Your task to perform on an android device: Show me popular games on the Play Store Image 0: 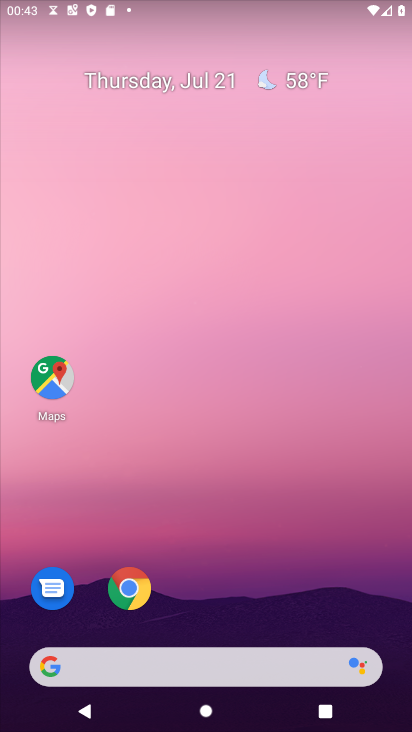
Step 0: drag from (208, 584) to (201, 52)
Your task to perform on an android device: Show me popular games on the Play Store Image 1: 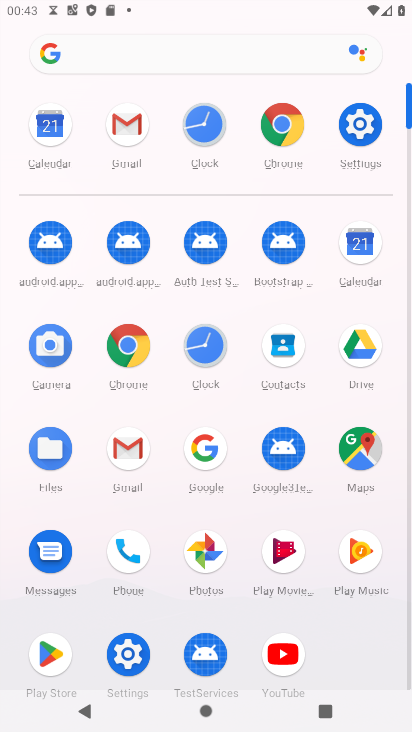
Step 1: click (52, 653)
Your task to perform on an android device: Show me popular games on the Play Store Image 2: 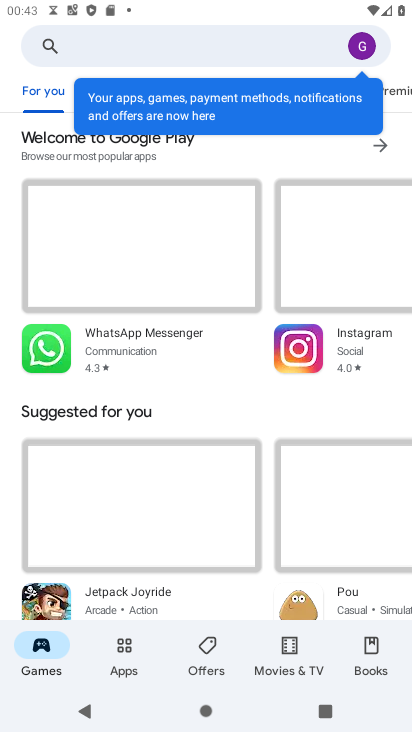
Step 2: click (117, 92)
Your task to perform on an android device: Show me popular games on the Play Store Image 3: 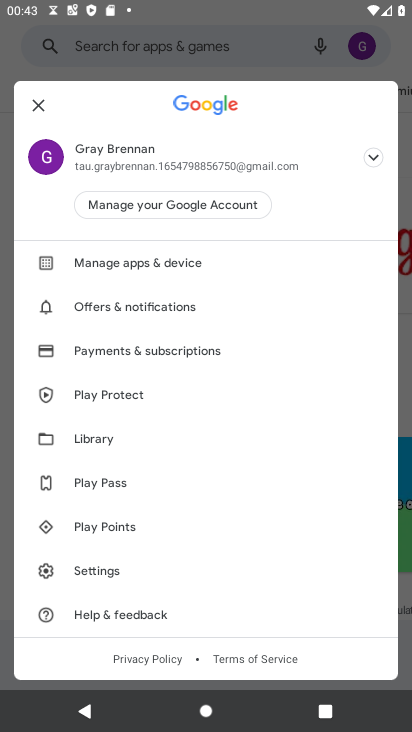
Step 3: click (138, 94)
Your task to perform on an android device: Show me popular games on the Play Store Image 4: 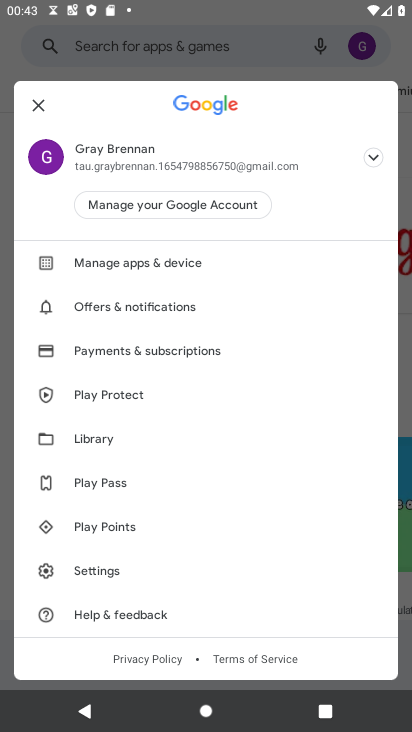
Step 4: click (32, 109)
Your task to perform on an android device: Show me popular games on the Play Store Image 5: 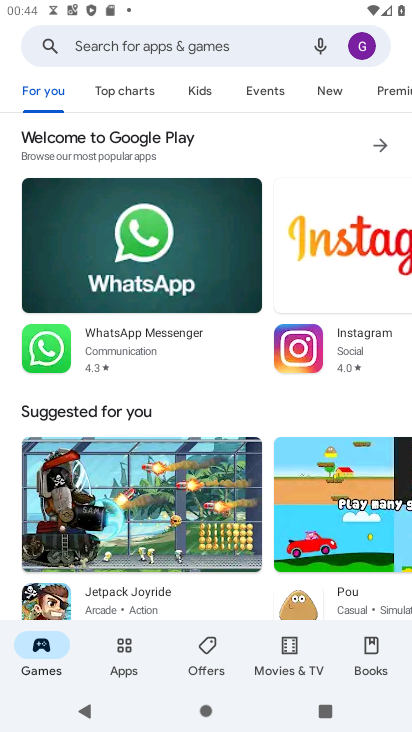
Step 5: click (124, 92)
Your task to perform on an android device: Show me popular games on the Play Store Image 6: 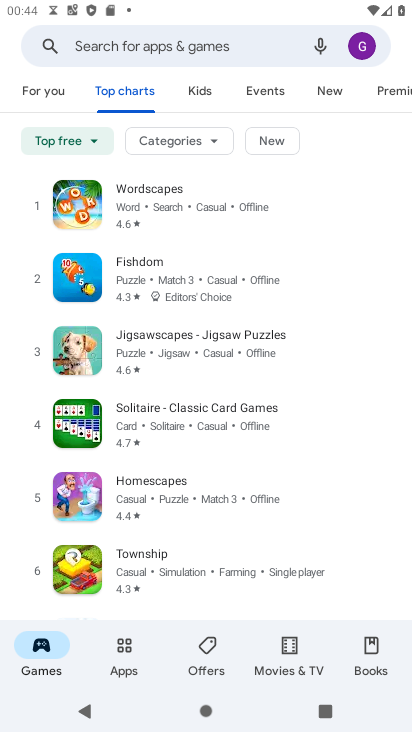
Step 6: task complete